Your task to perform on an android device: turn on data saver in the chrome app Image 0: 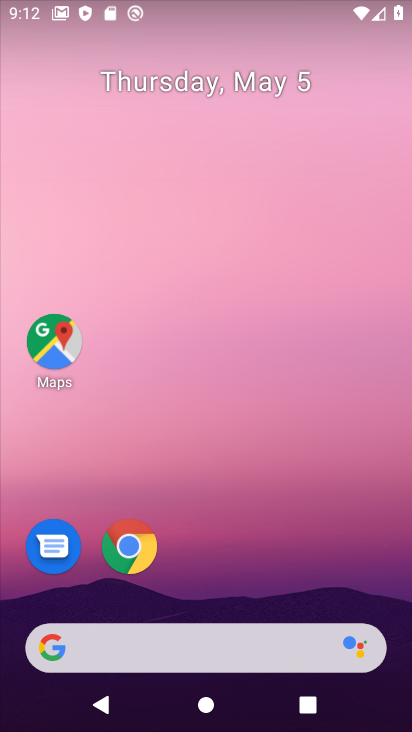
Step 0: click (131, 544)
Your task to perform on an android device: turn on data saver in the chrome app Image 1: 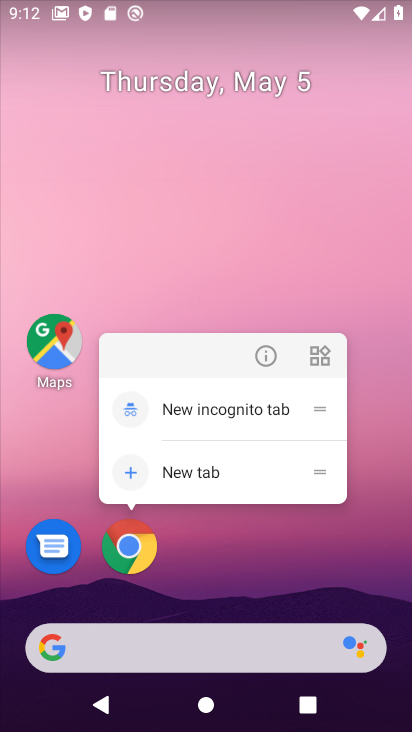
Step 1: click (129, 549)
Your task to perform on an android device: turn on data saver in the chrome app Image 2: 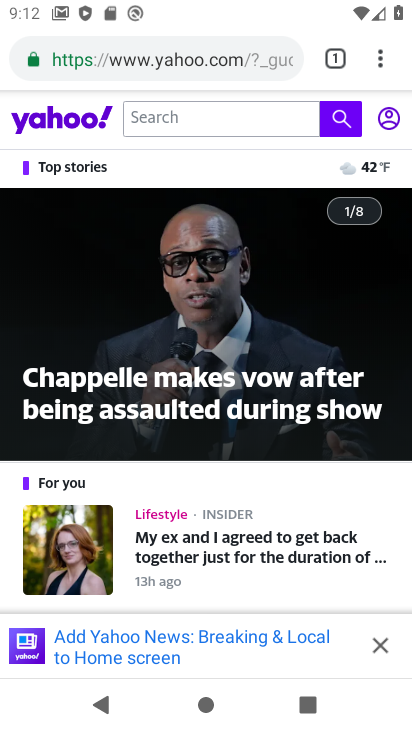
Step 2: click (381, 58)
Your task to perform on an android device: turn on data saver in the chrome app Image 3: 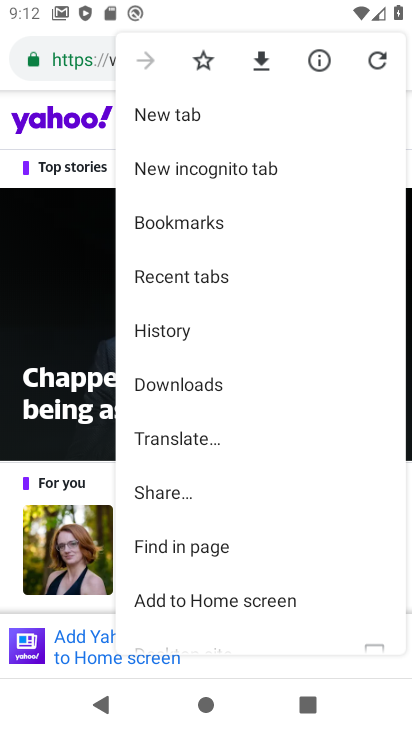
Step 3: drag from (216, 570) to (216, 212)
Your task to perform on an android device: turn on data saver in the chrome app Image 4: 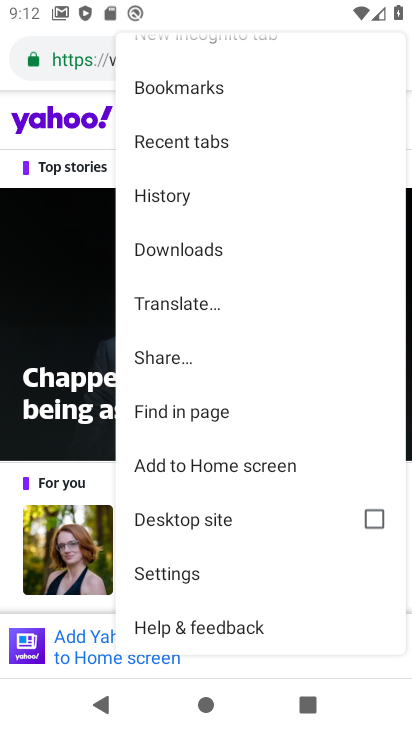
Step 4: click (190, 572)
Your task to perform on an android device: turn on data saver in the chrome app Image 5: 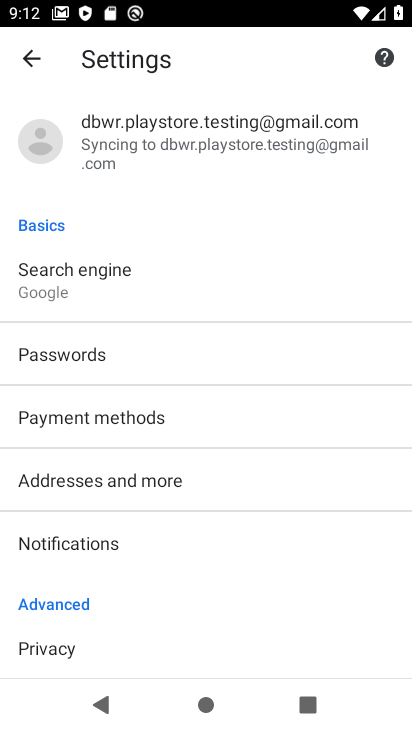
Step 5: drag from (128, 625) to (131, 292)
Your task to perform on an android device: turn on data saver in the chrome app Image 6: 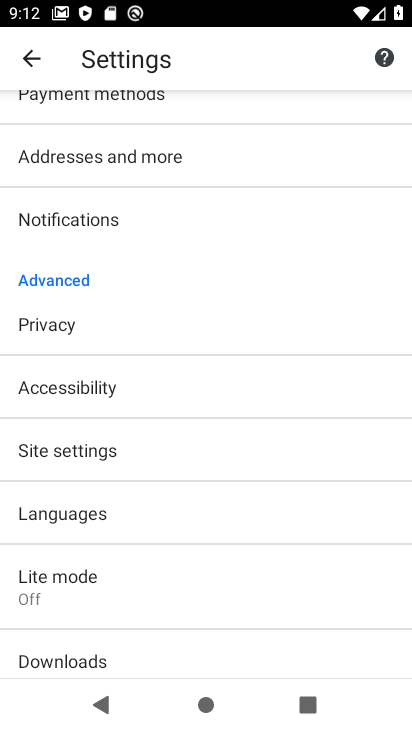
Step 6: drag from (123, 648) to (223, 343)
Your task to perform on an android device: turn on data saver in the chrome app Image 7: 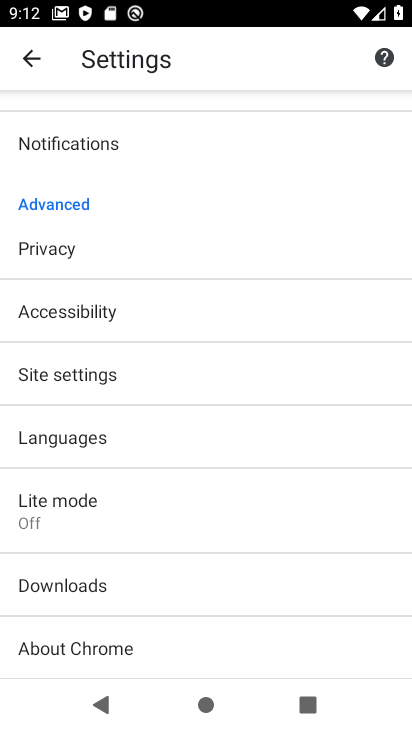
Step 7: drag from (108, 661) to (173, 401)
Your task to perform on an android device: turn on data saver in the chrome app Image 8: 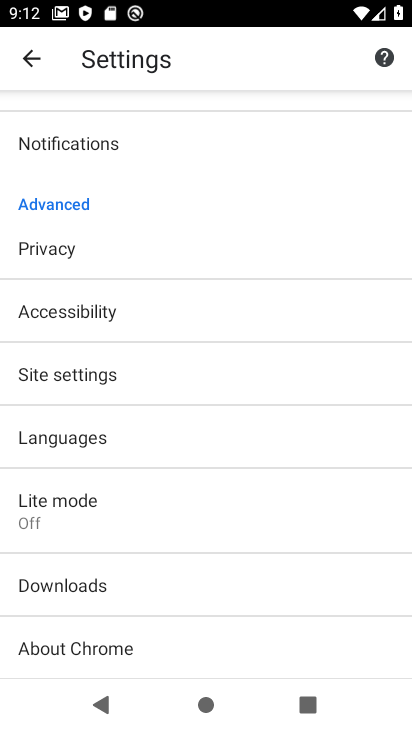
Step 8: click (59, 509)
Your task to perform on an android device: turn on data saver in the chrome app Image 9: 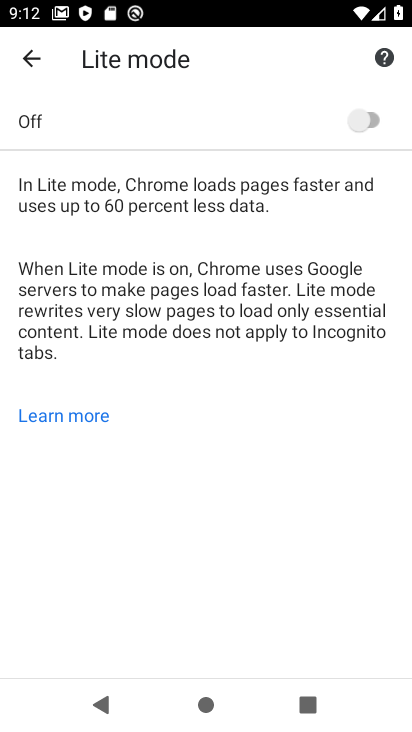
Step 9: click (374, 113)
Your task to perform on an android device: turn on data saver in the chrome app Image 10: 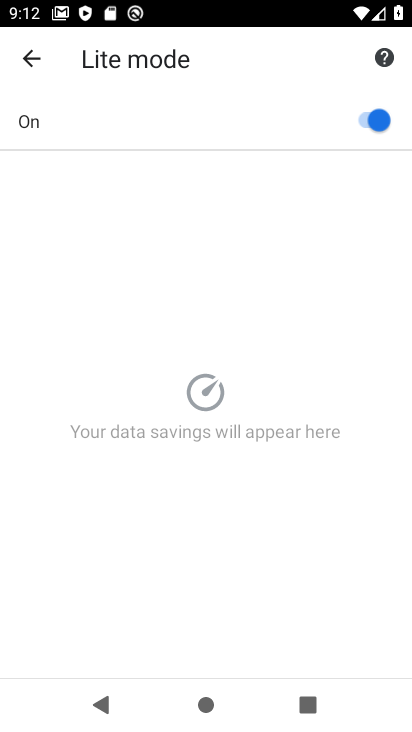
Step 10: task complete